Your task to perform on an android device: open app "Duolingo: language lessons" Image 0: 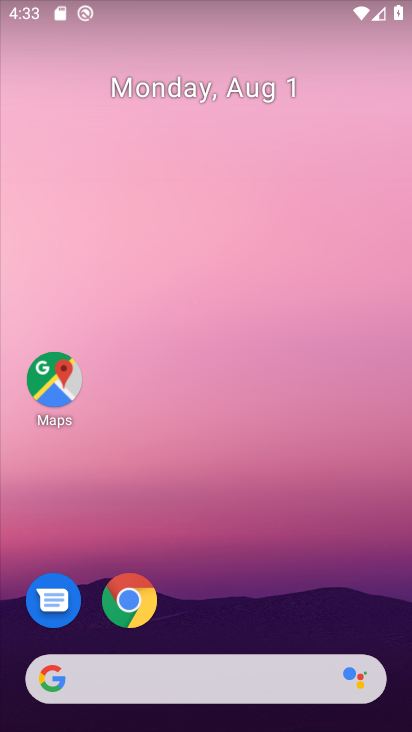
Step 0: drag from (281, 552) to (265, 53)
Your task to perform on an android device: open app "Duolingo: language lessons" Image 1: 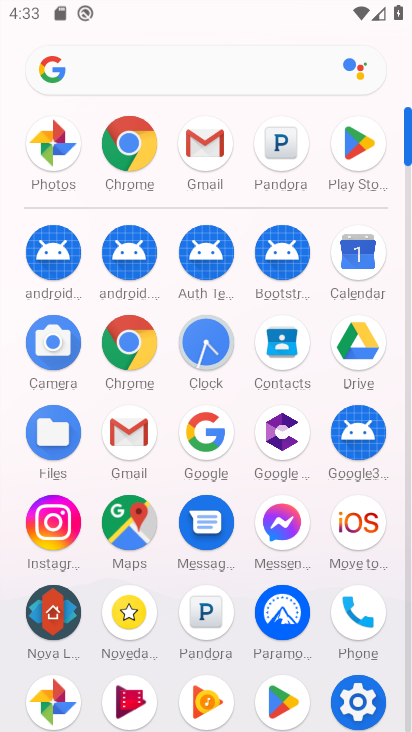
Step 1: click (355, 148)
Your task to perform on an android device: open app "Duolingo: language lessons" Image 2: 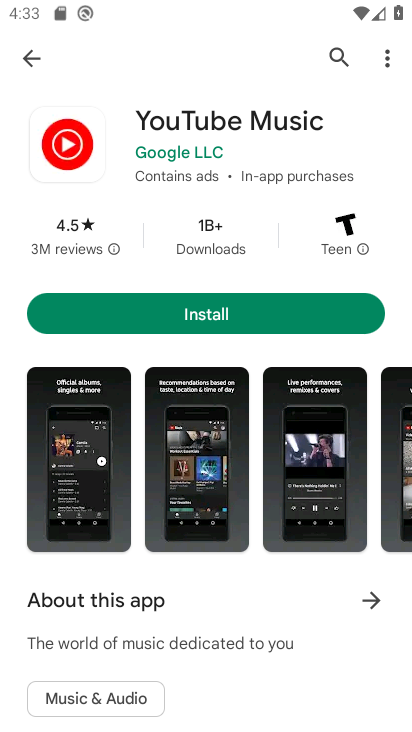
Step 2: click (352, 52)
Your task to perform on an android device: open app "Duolingo: language lessons" Image 3: 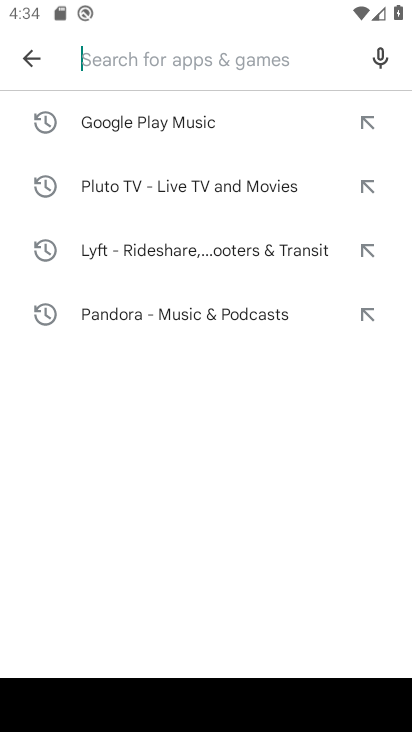
Step 3: type "Duolingo: language lessons"
Your task to perform on an android device: open app "Duolingo: language lessons" Image 4: 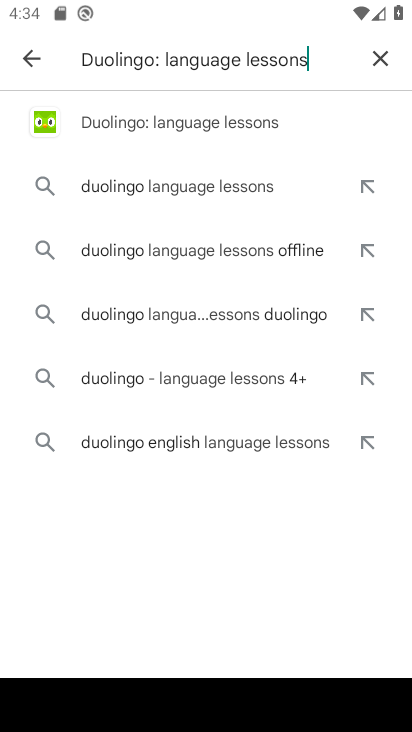
Step 4: click (261, 123)
Your task to perform on an android device: open app "Duolingo: language lessons" Image 5: 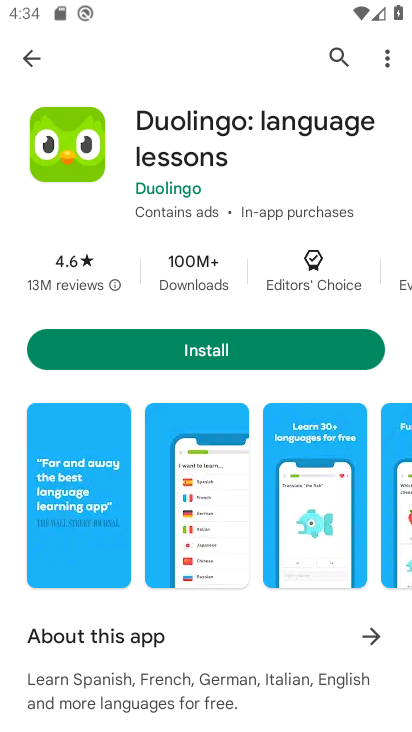
Step 5: task complete